Your task to perform on an android device: delete browsing data in the chrome app Image 0: 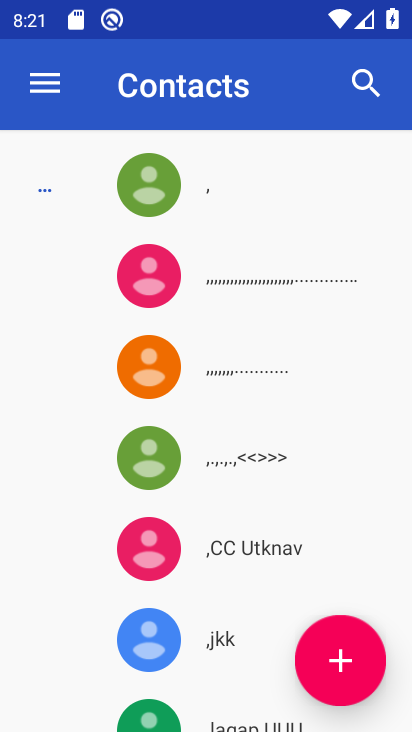
Step 0: press home button
Your task to perform on an android device: delete browsing data in the chrome app Image 1: 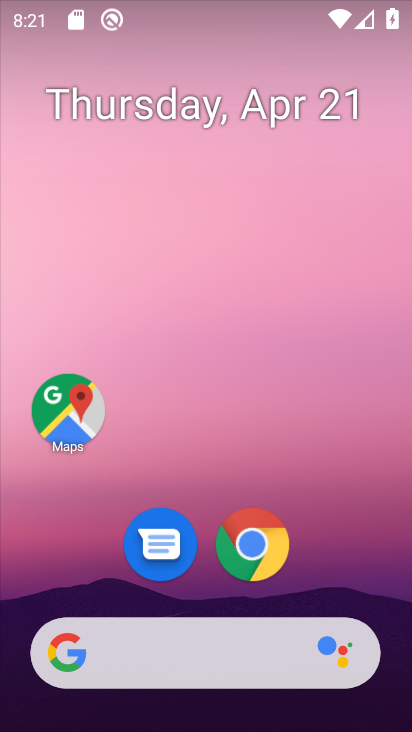
Step 1: click (257, 546)
Your task to perform on an android device: delete browsing data in the chrome app Image 2: 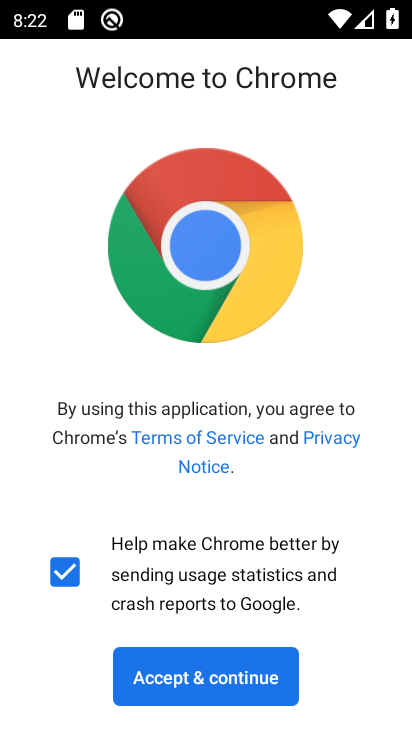
Step 2: click (229, 680)
Your task to perform on an android device: delete browsing data in the chrome app Image 3: 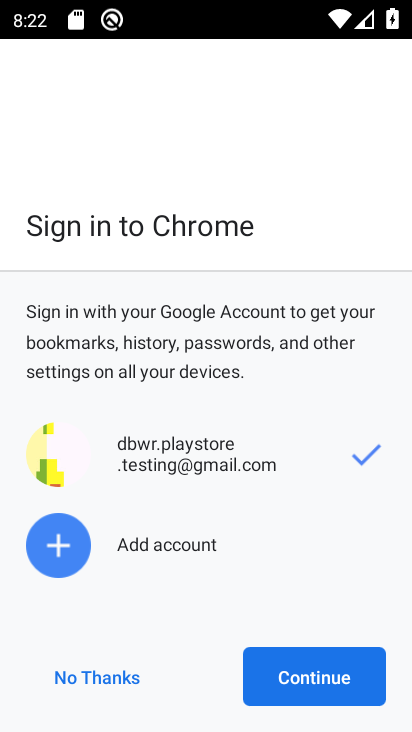
Step 3: click (306, 677)
Your task to perform on an android device: delete browsing data in the chrome app Image 4: 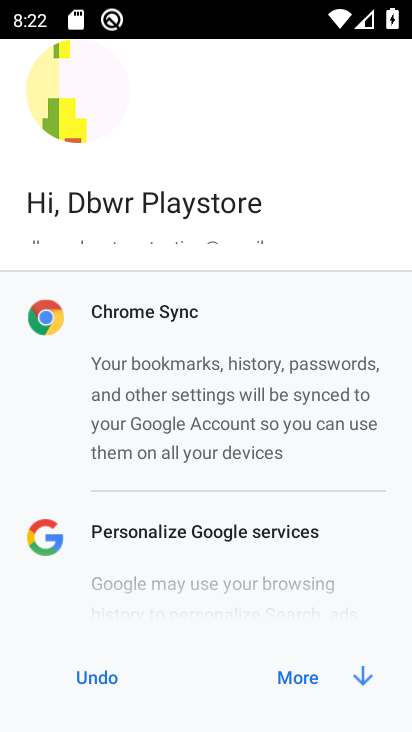
Step 4: click (306, 677)
Your task to perform on an android device: delete browsing data in the chrome app Image 5: 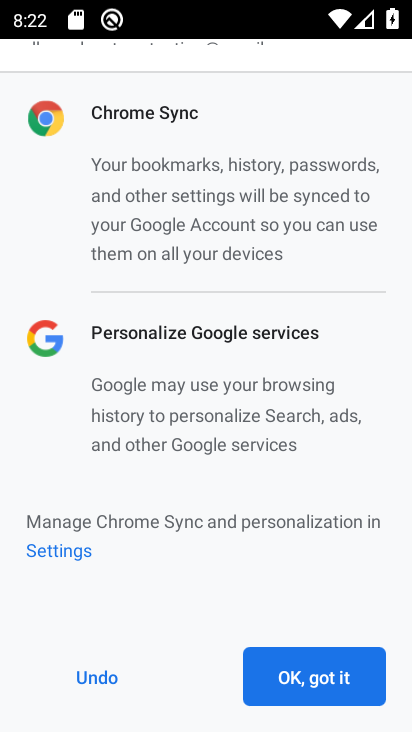
Step 5: click (306, 677)
Your task to perform on an android device: delete browsing data in the chrome app Image 6: 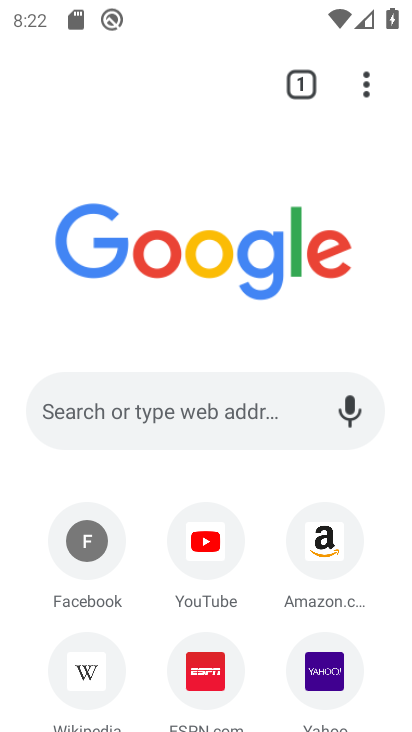
Step 6: click (365, 92)
Your task to perform on an android device: delete browsing data in the chrome app Image 7: 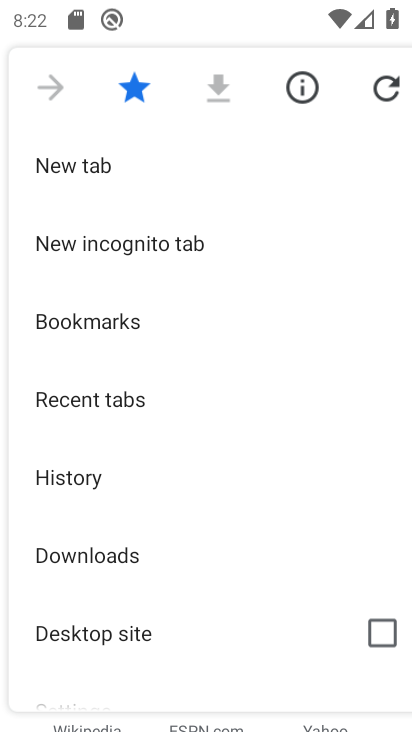
Step 7: click (60, 480)
Your task to perform on an android device: delete browsing data in the chrome app Image 8: 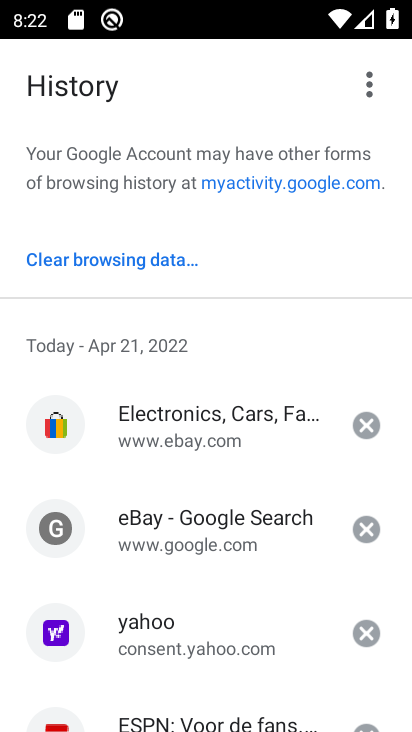
Step 8: click (84, 257)
Your task to perform on an android device: delete browsing data in the chrome app Image 9: 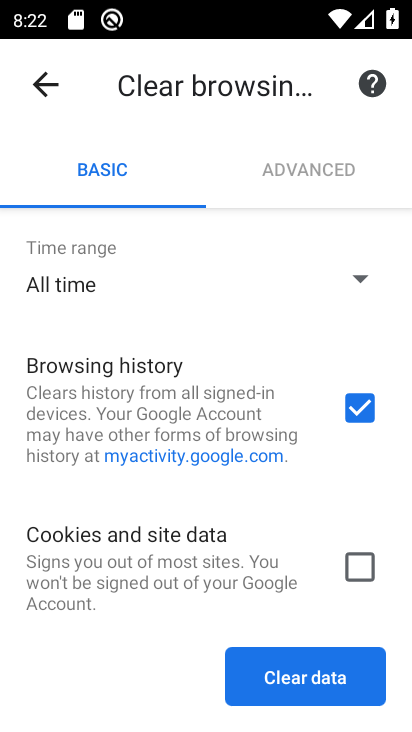
Step 9: drag from (258, 527) to (245, 331)
Your task to perform on an android device: delete browsing data in the chrome app Image 10: 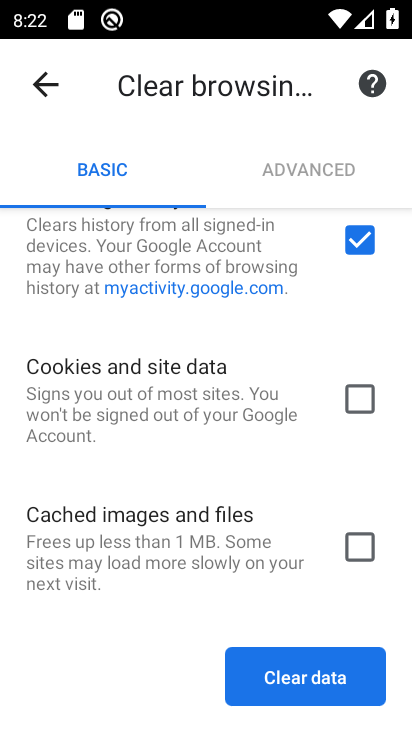
Step 10: click (290, 667)
Your task to perform on an android device: delete browsing data in the chrome app Image 11: 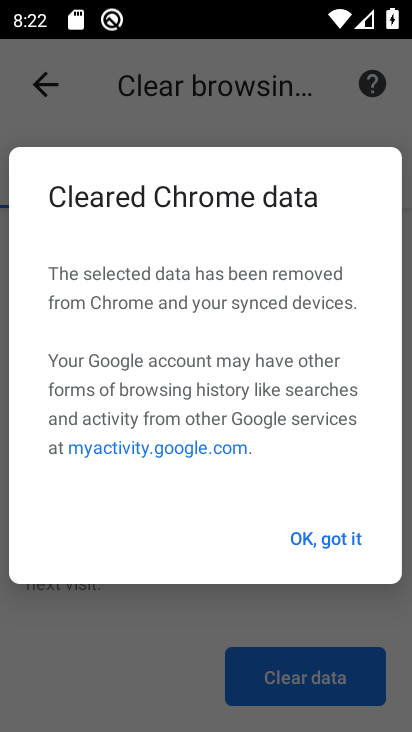
Step 11: click (334, 538)
Your task to perform on an android device: delete browsing data in the chrome app Image 12: 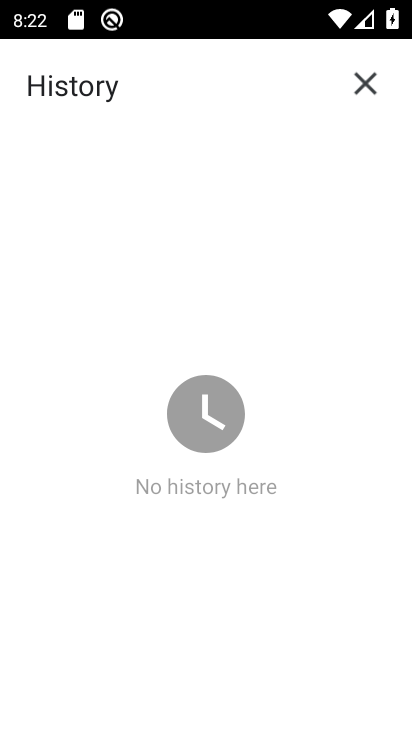
Step 12: task complete